Your task to perform on an android device: open a bookmark in the chrome app Image 0: 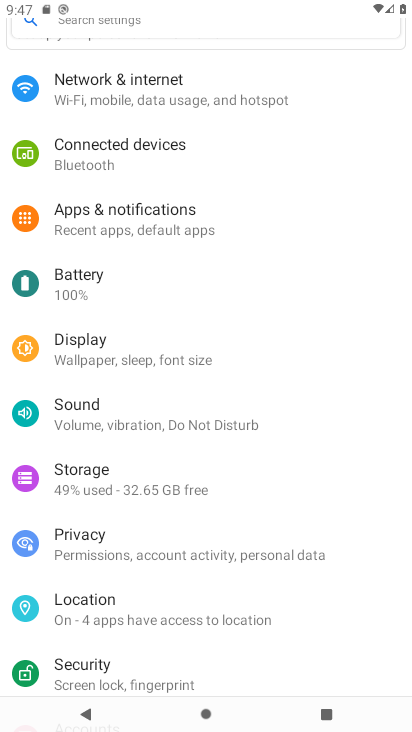
Step 0: press home button
Your task to perform on an android device: open a bookmark in the chrome app Image 1: 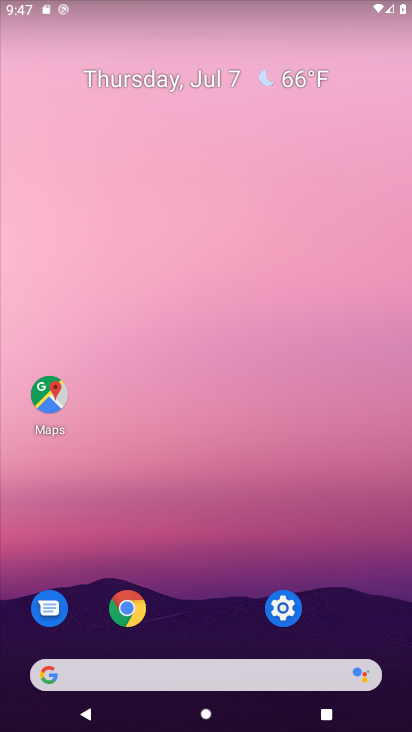
Step 1: click (137, 610)
Your task to perform on an android device: open a bookmark in the chrome app Image 2: 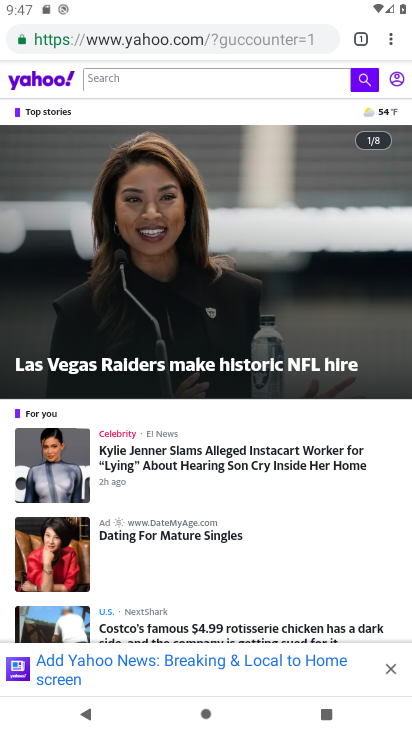
Step 2: click (386, 41)
Your task to perform on an android device: open a bookmark in the chrome app Image 3: 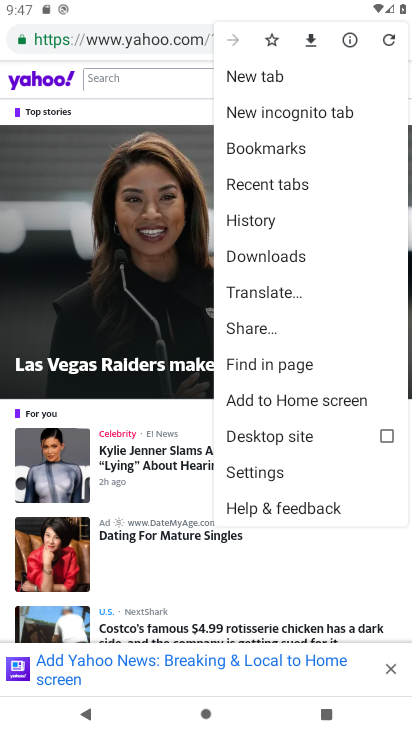
Step 3: click (272, 146)
Your task to perform on an android device: open a bookmark in the chrome app Image 4: 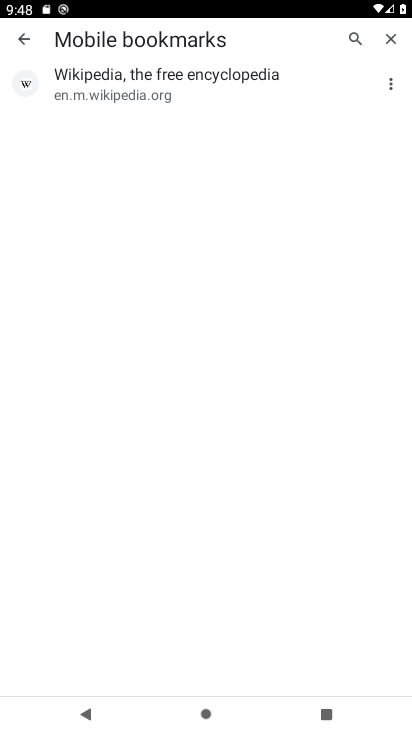
Step 4: task complete